Your task to perform on an android device: Search for Mexican restaurants on Maps Image 0: 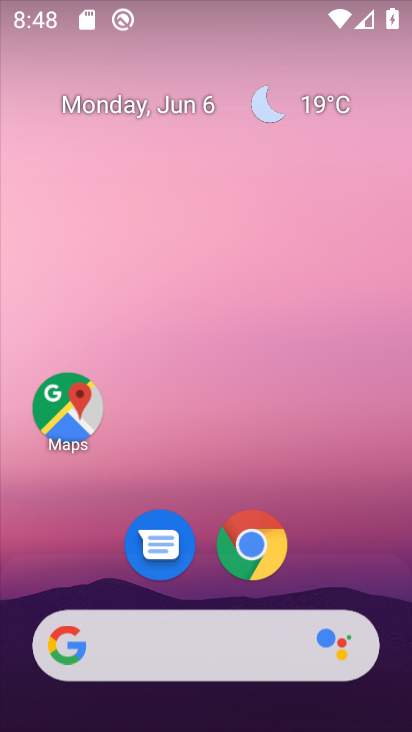
Step 0: click (84, 411)
Your task to perform on an android device: Search for Mexican restaurants on Maps Image 1: 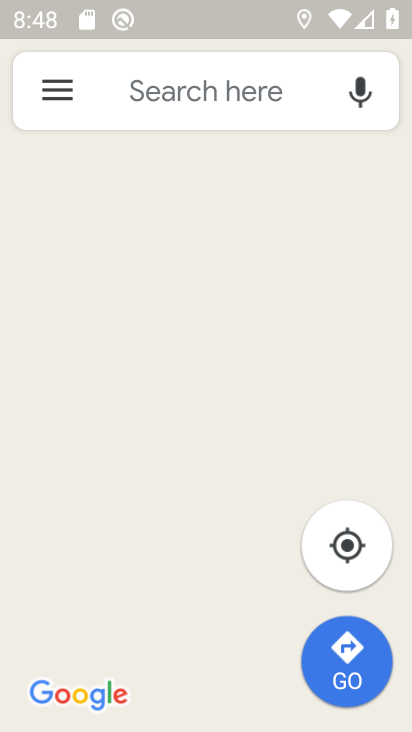
Step 1: click (172, 93)
Your task to perform on an android device: Search for Mexican restaurants on Maps Image 2: 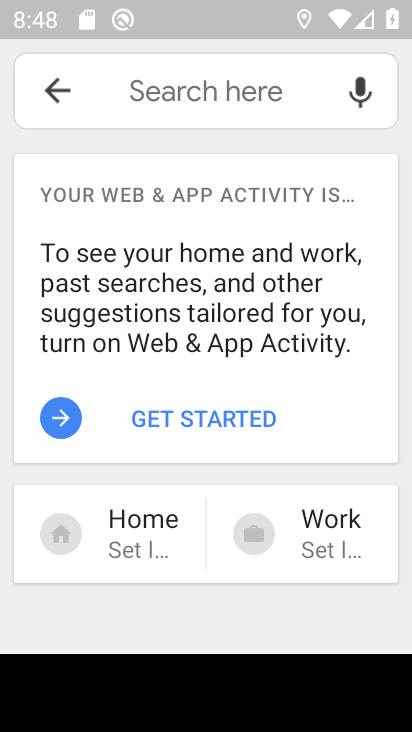
Step 2: type "mexican restaurants"
Your task to perform on an android device: Search for Mexican restaurants on Maps Image 3: 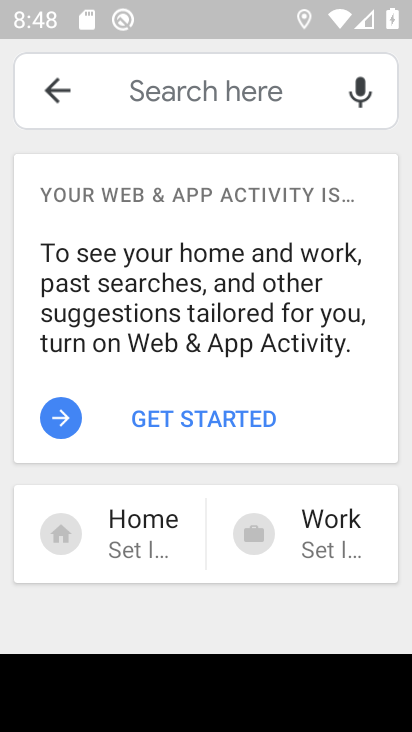
Step 3: click (162, 101)
Your task to perform on an android device: Search for Mexican restaurants on Maps Image 4: 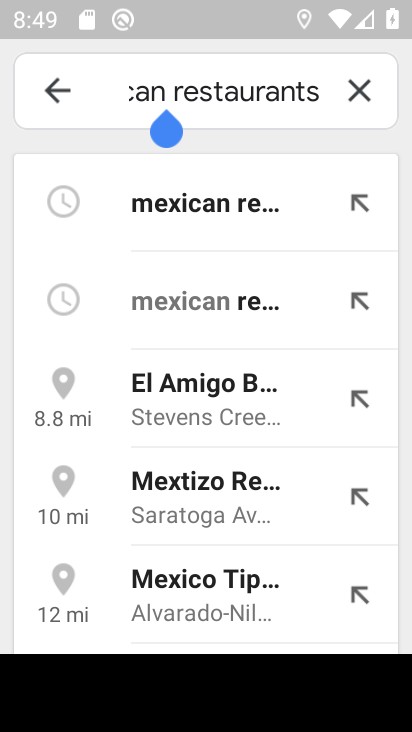
Step 4: click (227, 211)
Your task to perform on an android device: Search for Mexican restaurants on Maps Image 5: 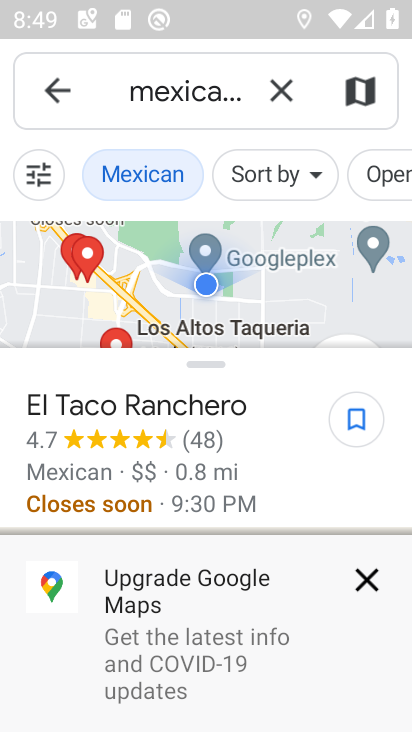
Step 5: task complete